Your task to perform on an android device: Is it going to rain today? Image 0: 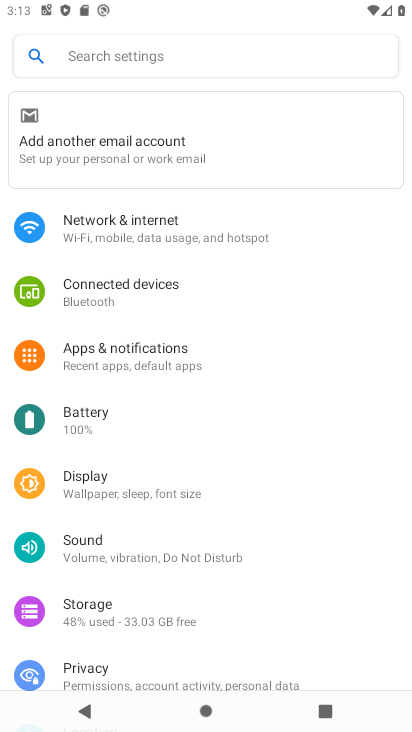
Step 0: press home button
Your task to perform on an android device: Is it going to rain today? Image 1: 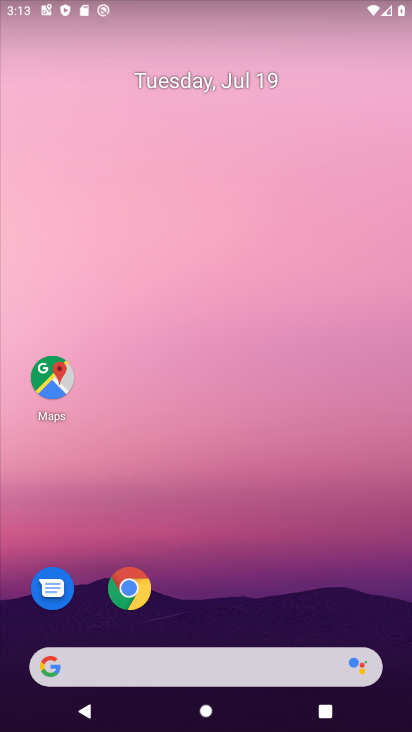
Step 1: drag from (207, 604) to (214, 177)
Your task to perform on an android device: Is it going to rain today? Image 2: 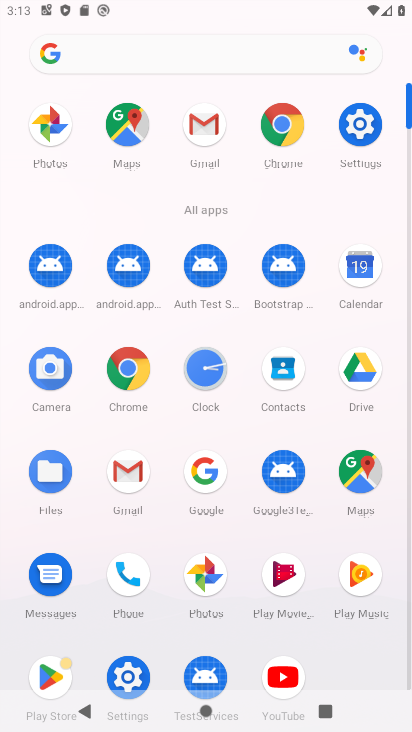
Step 2: click (191, 489)
Your task to perform on an android device: Is it going to rain today? Image 3: 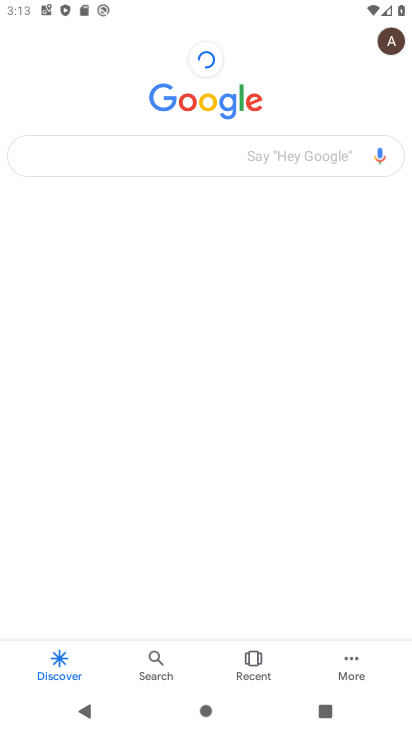
Step 3: click (194, 154)
Your task to perform on an android device: Is it going to rain today? Image 4: 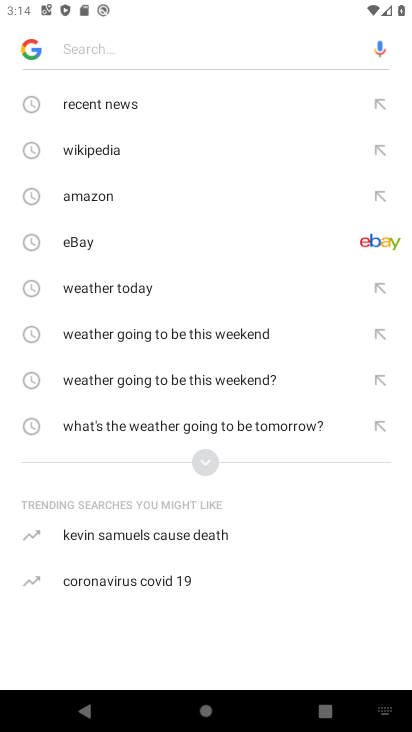
Step 4: type "weather"
Your task to perform on an android device: Is it going to rain today? Image 5: 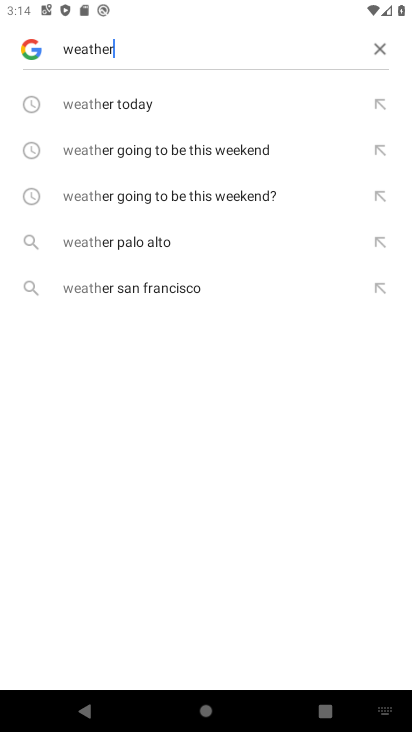
Step 5: type ""
Your task to perform on an android device: Is it going to rain today? Image 6: 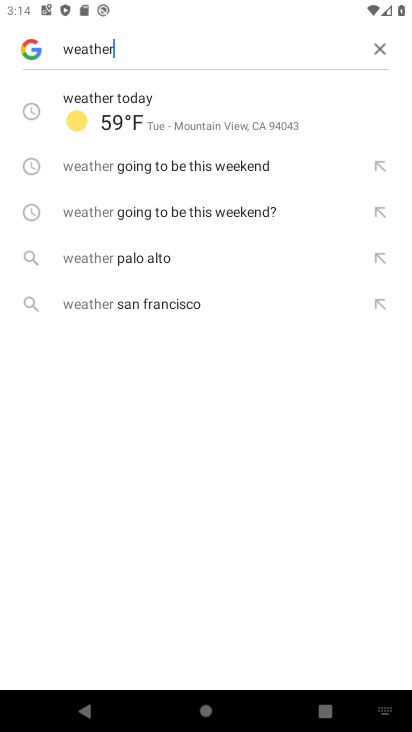
Step 6: click (139, 109)
Your task to perform on an android device: Is it going to rain today? Image 7: 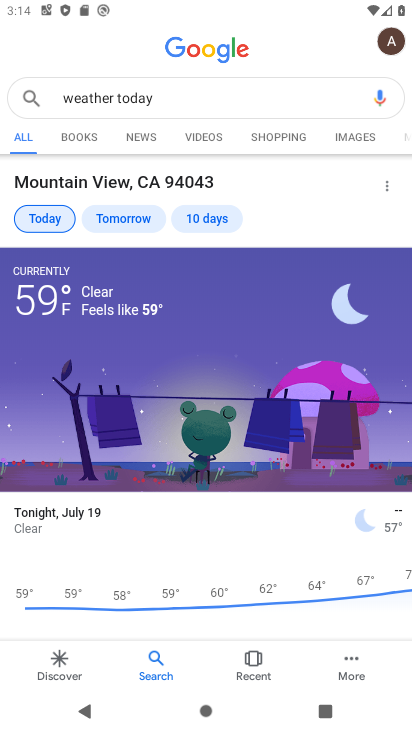
Step 7: task complete